Your task to perform on an android device: Go to Google Image 0: 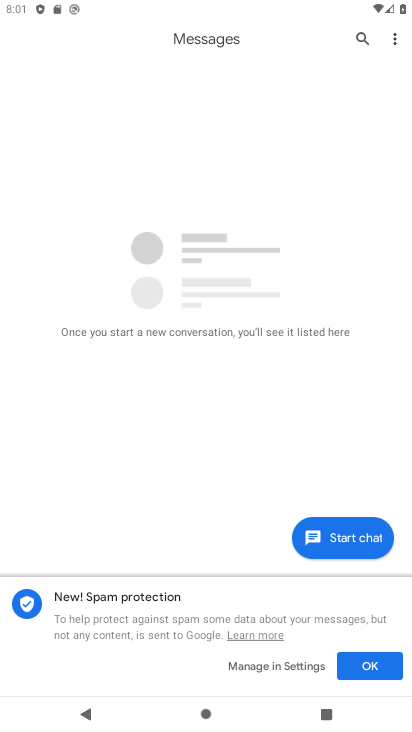
Step 0: press home button
Your task to perform on an android device: Go to Google Image 1: 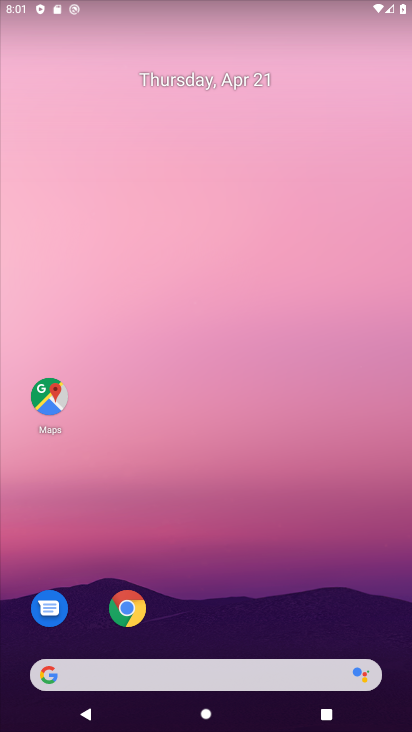
Step 1: click (162, 669)
Your task to perform on an android device: Go to Google Image 2: 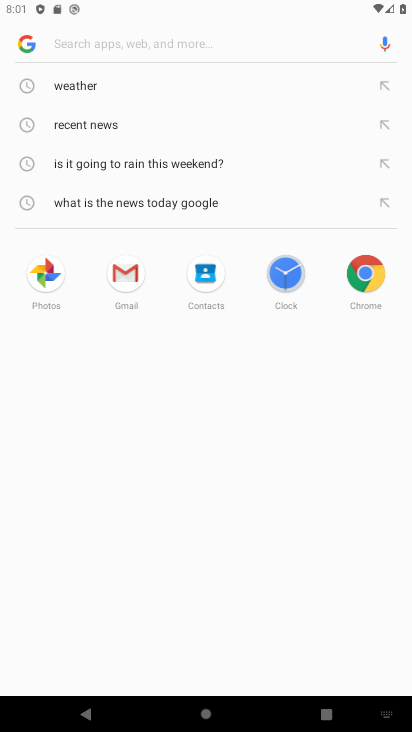
Step 2: task complete